Your task to perform on an android device: turn off sleep mode Image 0: 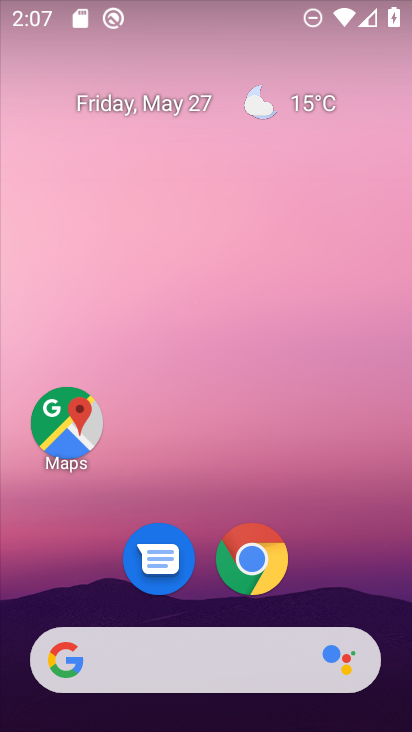
Step 0: drag from (274, 621) to (283, 57)
Your task to perform on an android device: turn off sleep mode Image 1: 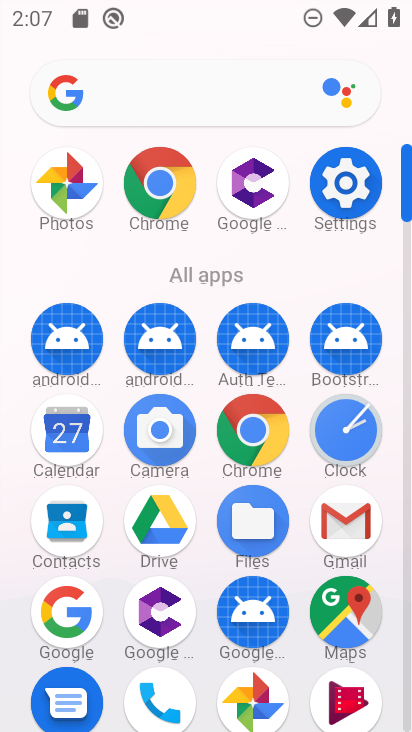
Step 1: click (354, 184)
Your task to perform on an android device: turn off sleep mode Image 2: 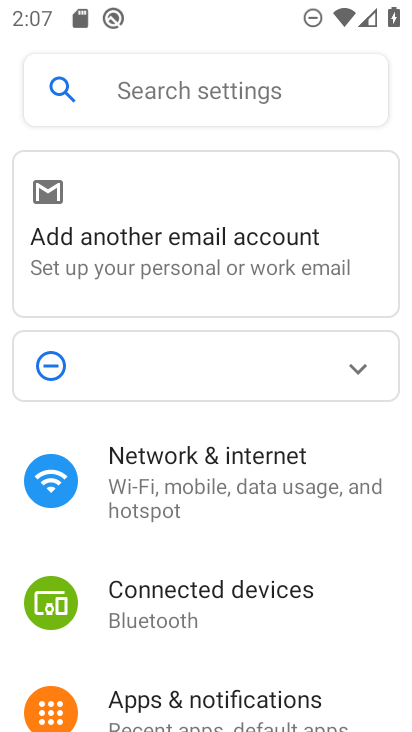
Step 2: drag from (214, 678) to (282, 101)
Your task to perform on an android device: turn off sleep mode Image 3: 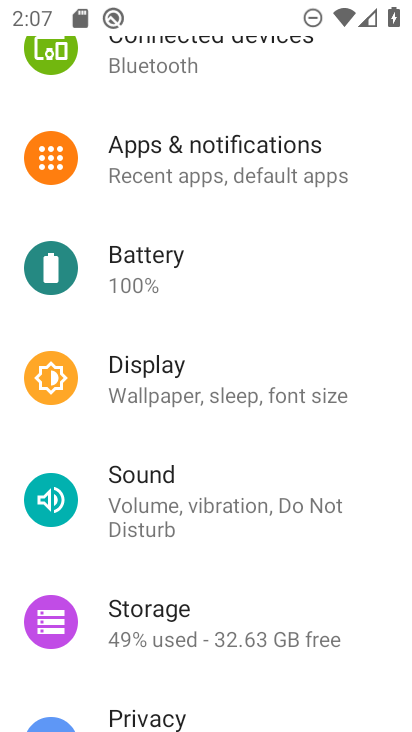
Step 3: click (260, 388)
Your task to perform on an android device: turn off sleep mode Image 4: 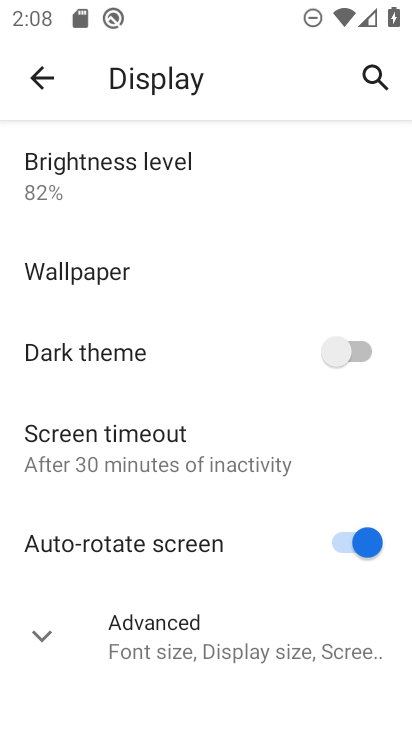
Step 4: task complete